Your task to perform on an android device: manage bookmarks in the chrome app Image 0: 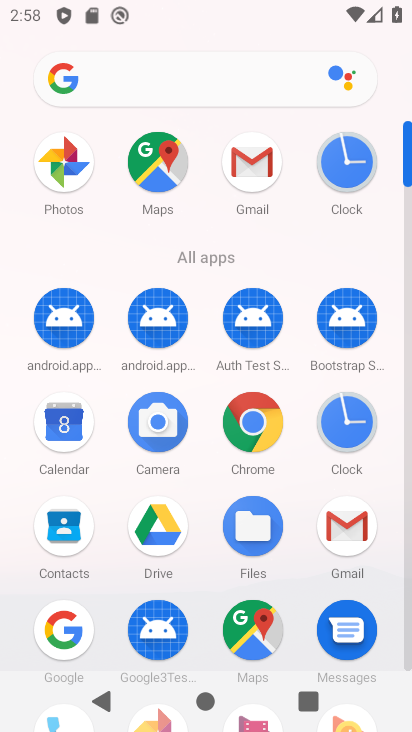
Step 0: press home button
Your task to perform on an android device: manage bookmarks in the chrome app Image 1: 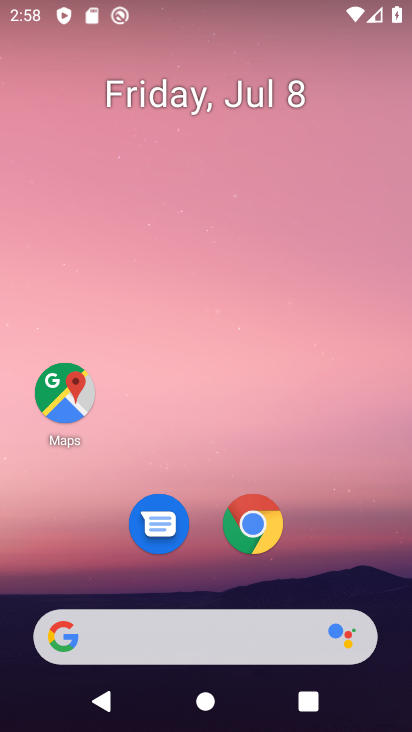
Step 1: click (270, 527)
Your task to perform on an android device: manage bookmarks in the chrome app Image 2: 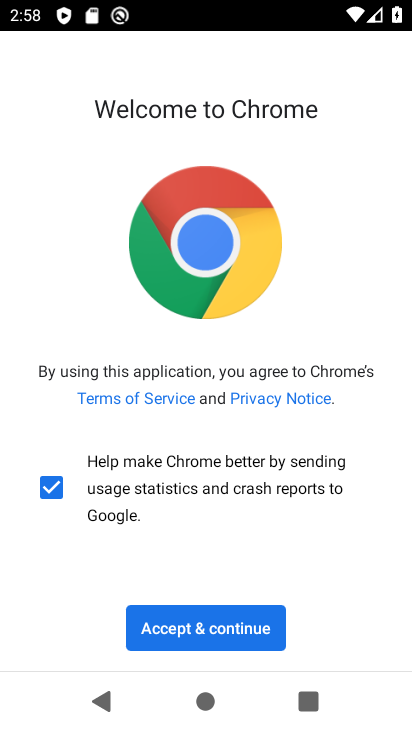
Step 2: click (241, 628)
Your task to perform on an android device: manage bookmarks in the chrome app Image 3: 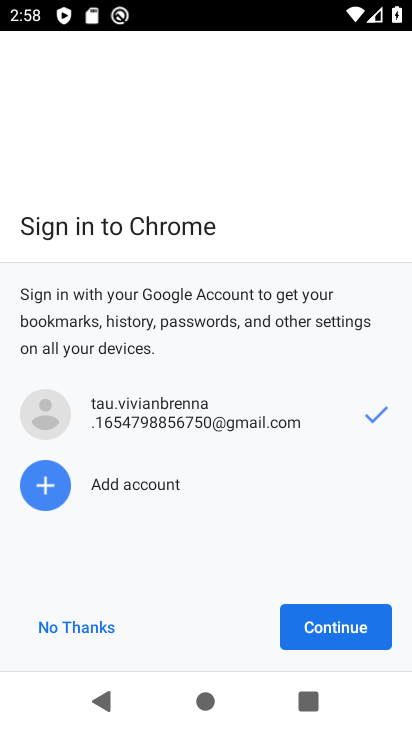
Step 3: click (310, 618)
Your task to perform on an android device: manage bookmarks in the chrome app Image 4: 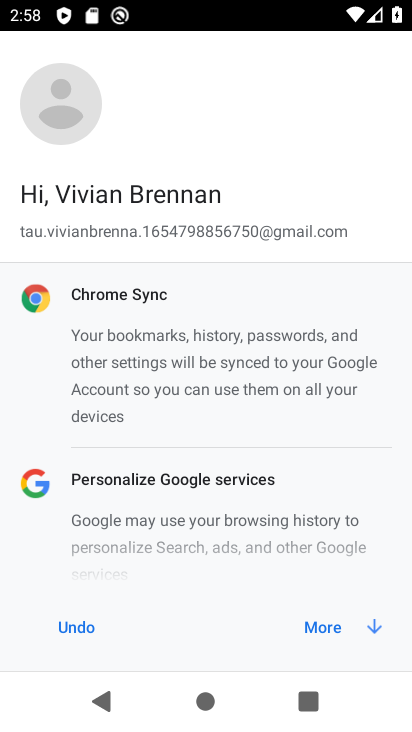
Step 4: click (317, 622)
Your task to perform on an android device: manage bookmarks in the chrome app Image 5: 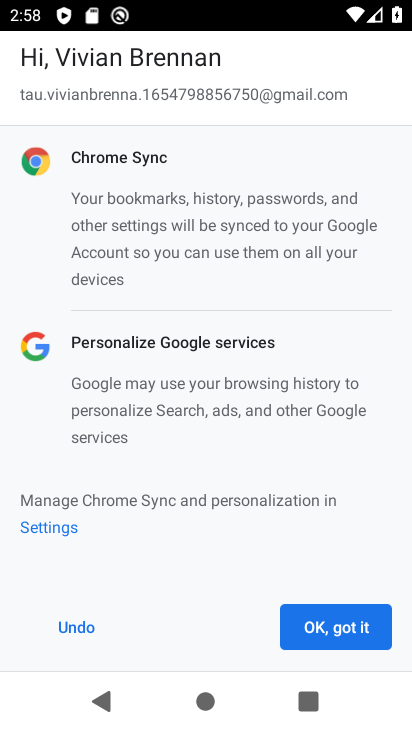
Step 5: click (317, 622)
Your task to perform on an android device: manage bookmarks in the chrome app Image 6: 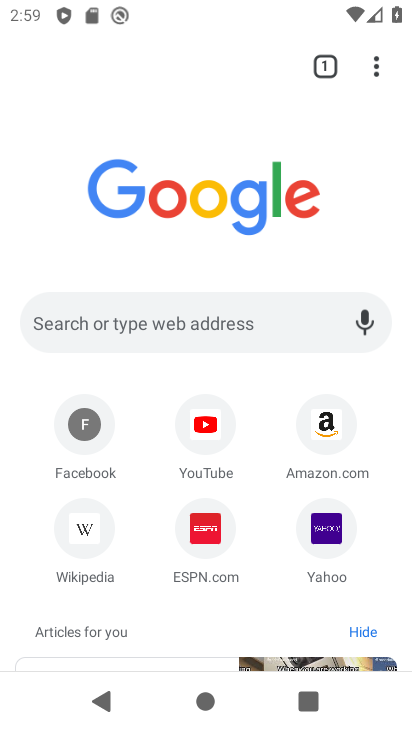
Step 6: click (380, 65)
Your task to perform on an android device: manage bookmarks in the chrome app Image 7: 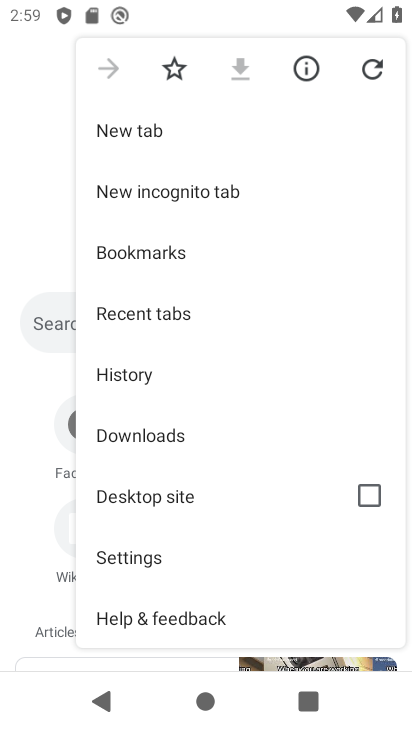
Step 7: click (175, 250)
Your task to perform on an android device: manage bookmarks in the chrome app Image 8: 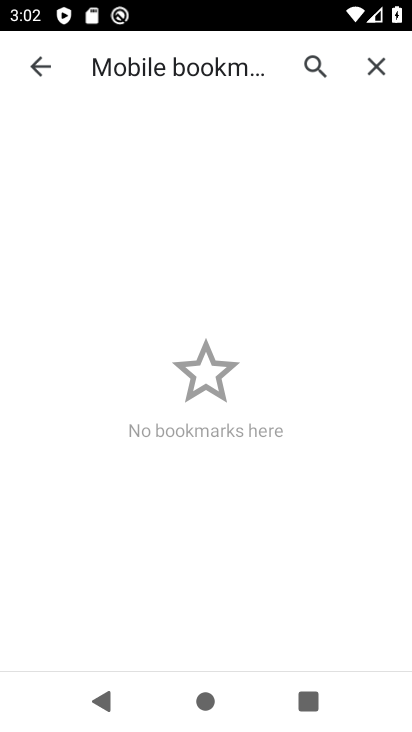
Step 8: task complete